Your task to perform on an android device: Go to accessibility settings Image 0: 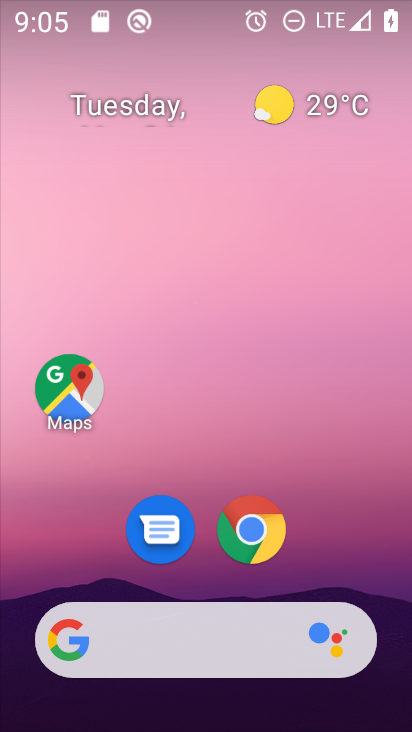
Step 0: drag from (391, 628) to (272, 48)
Your task to perform on an android device: Go to accessibility settings Image 1: 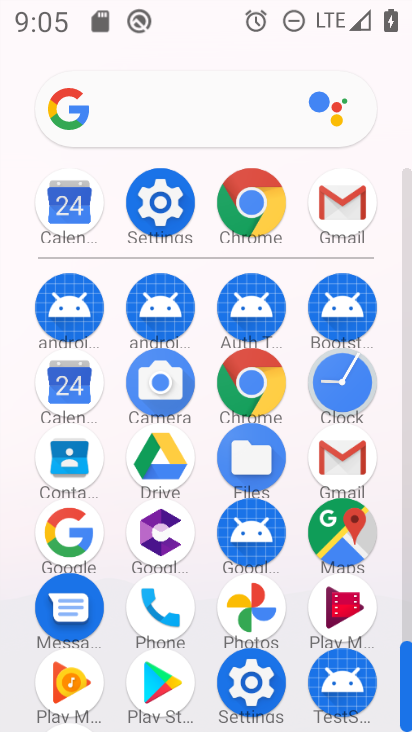
Step 1: click (149, 226)
Your task to perform on an android device: Go to accessibility settings Image 2: 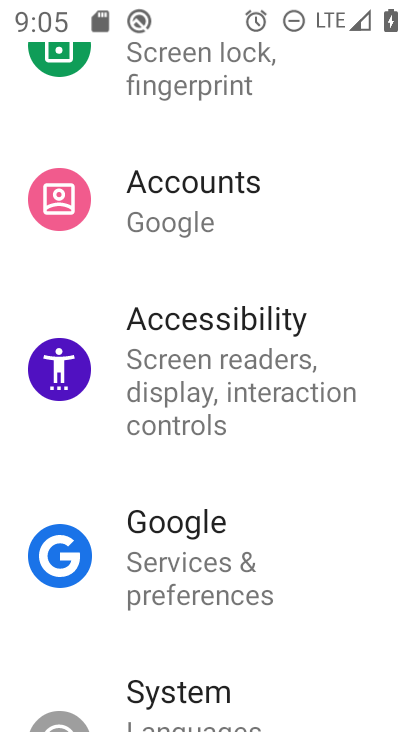
Step 2: click (254, 409)
Your task to perform on an android device: Go to accessibility settings Image 3: 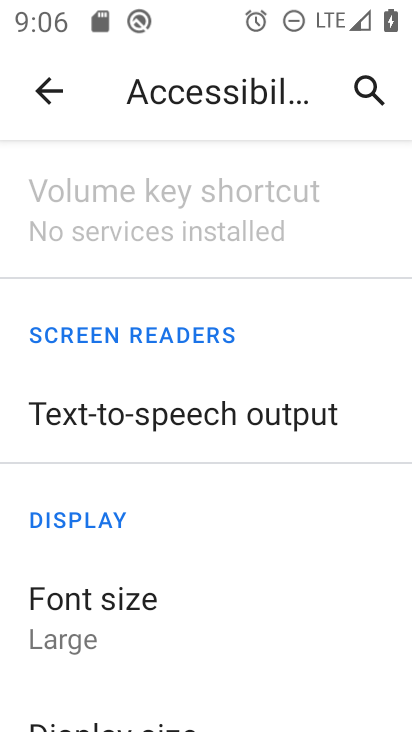
Step 3: task complete